Your task to perform on an android device: Check the weather Image 0: 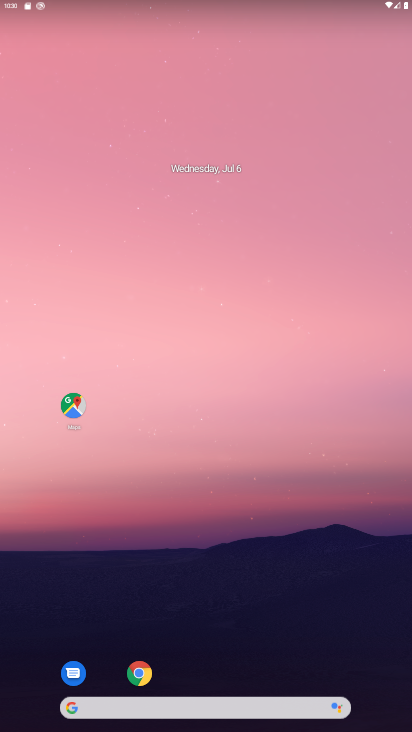
Step 0: drag from (217, 670) to (237, 97)
Your task to perform on an android device: Check the weather Image 1: 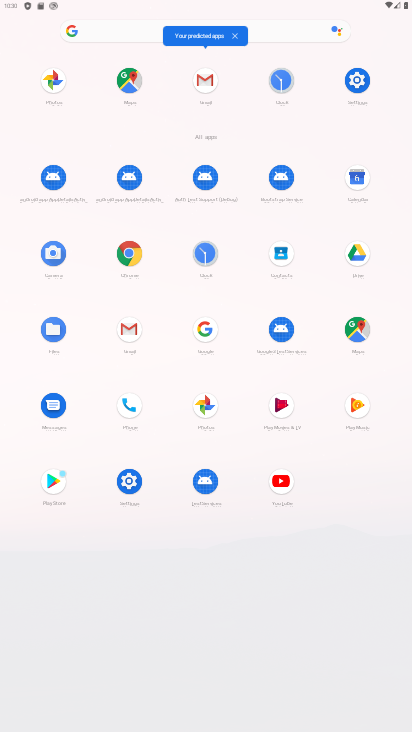
Step 1: drag from (178, 207) to (178, 367)
Your task to perform on an android device: Check the weather Image 2: 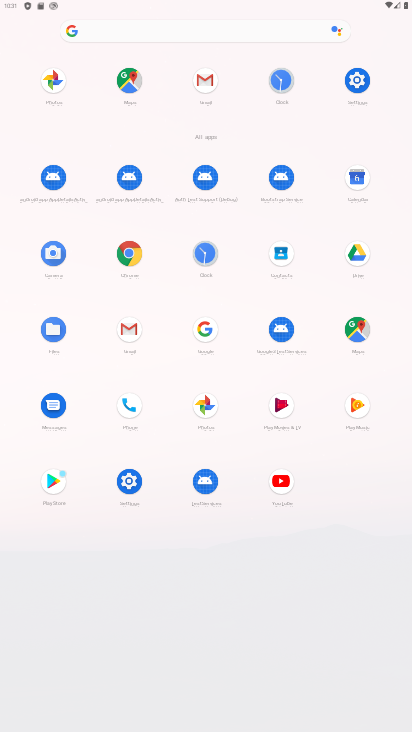
Step 2: click (205, 329)
Your task to perform on an android device: Check the weather Image 3: 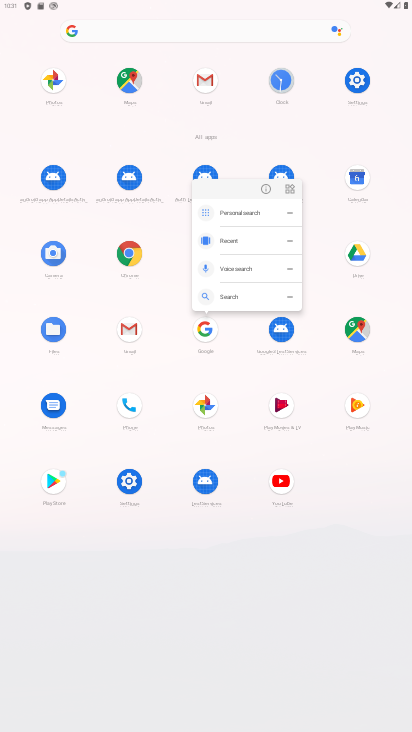
Step 3: click (205, 329)
Your task to perform on an android device: Check the weather Image 4: 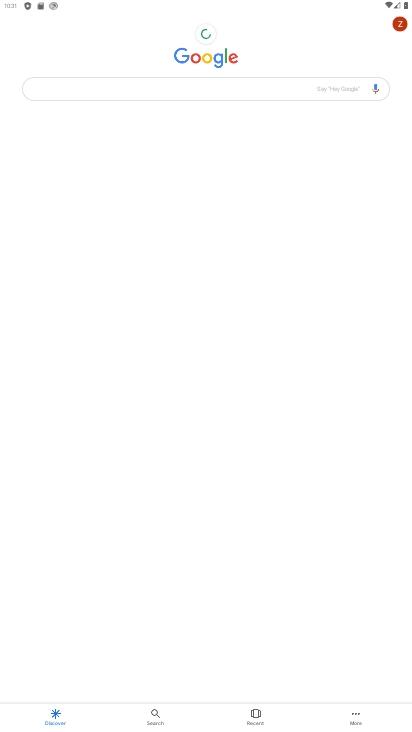
Step 4: click (178, 84)
Your task to perform on an android device: Check the weather Image 5: 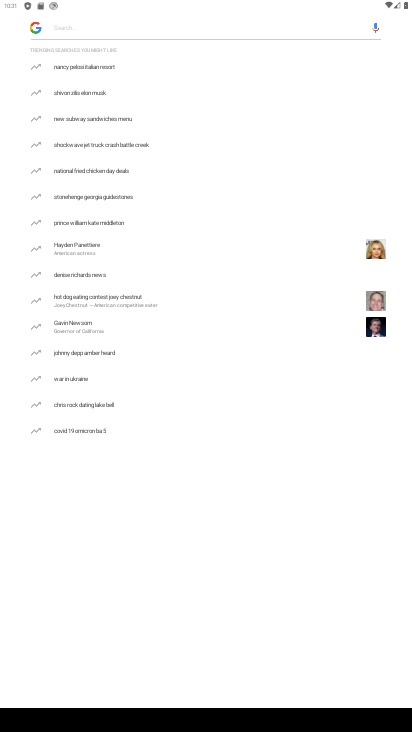
Step 5: type "weather"
Your task to perform on an android device: Check the weather Image 6: 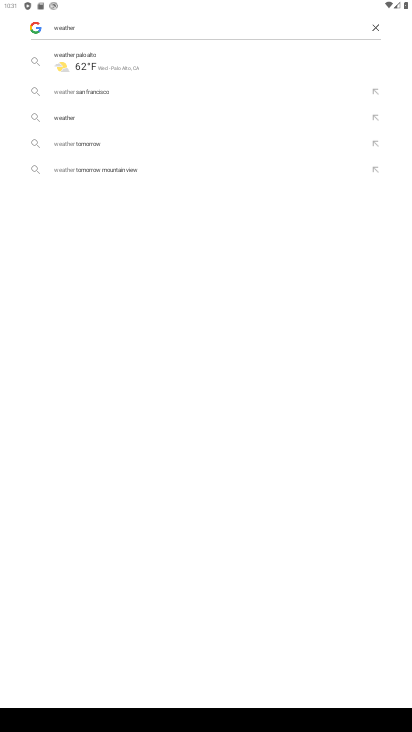
Step 6: click (88, 115)
Your task to perform on an android device: Check the weather Image 7: 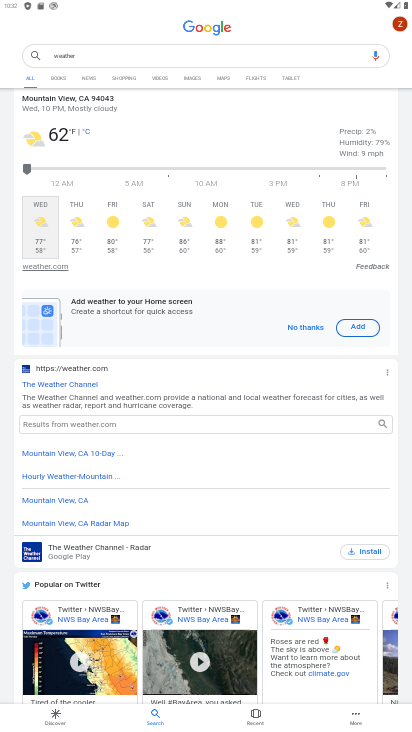
Step 7: task complete